Your task to perform on an android device: Show me recent news Image 0: 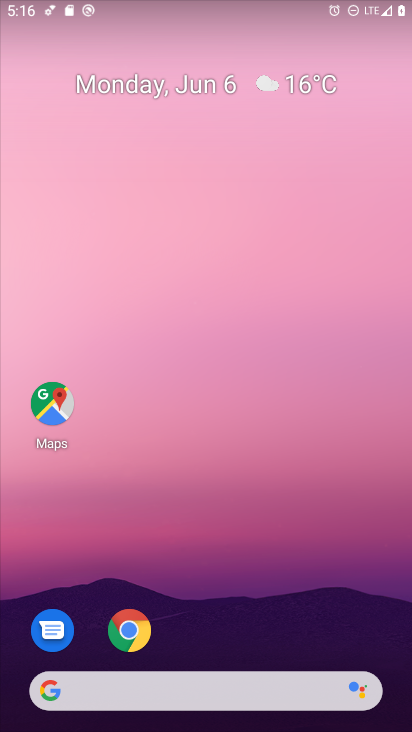
Step 0: drag from (329, 613) to (175, 4)
Your task to perform on an android device: Show me recent news Image 1: 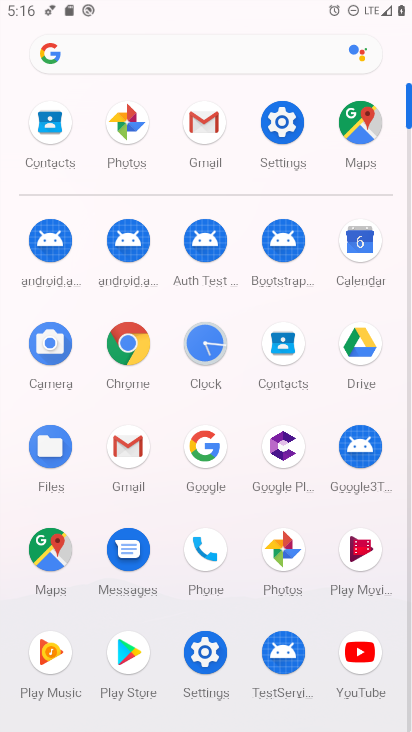
Step 1: click (211, 447)
Your task to perform on an android device: Show me recent news Image 2: 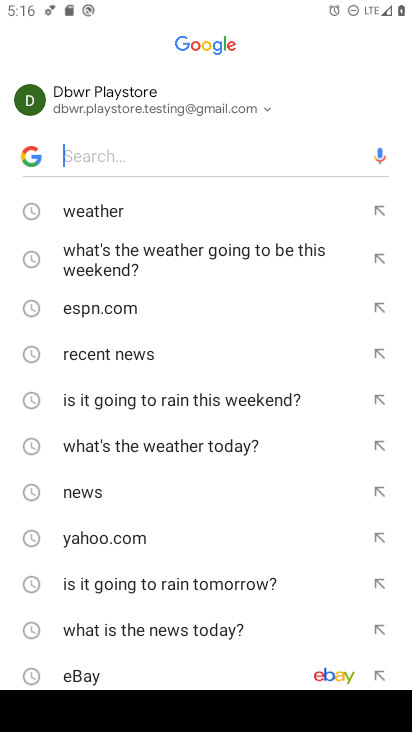
Step 2: click (168, 370)
Your task to perform on an android device: Show me recent news Image 3: 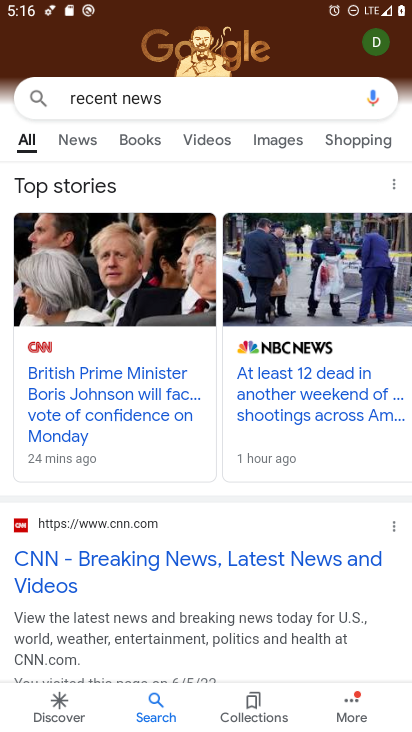
Step 3: task complete